Your task to perform on an android device: turn vacation reply on in the gmail app Image 0: 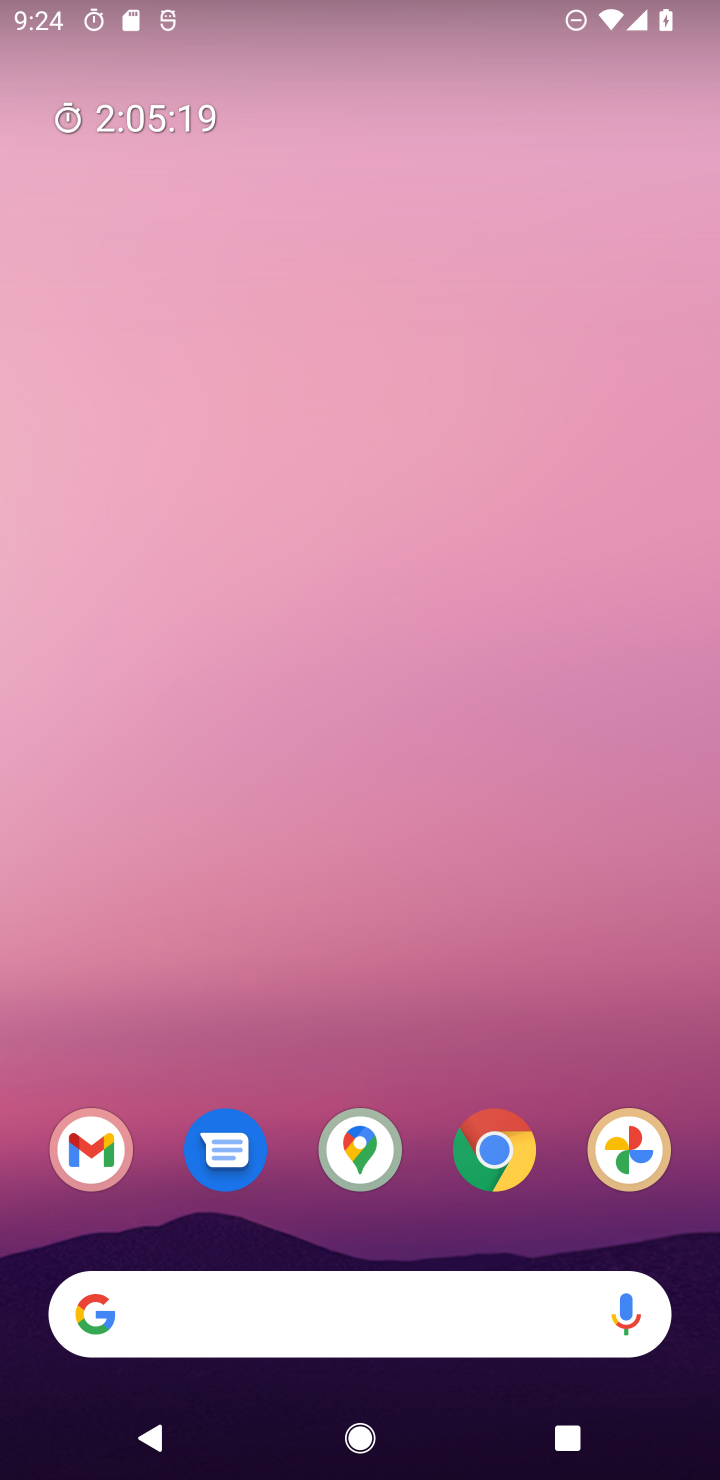
Step 0: drag from (404, 1303) to (459, 16)
Your task to perform on an android device: turn vacation reply on in the gmail app Image 1: 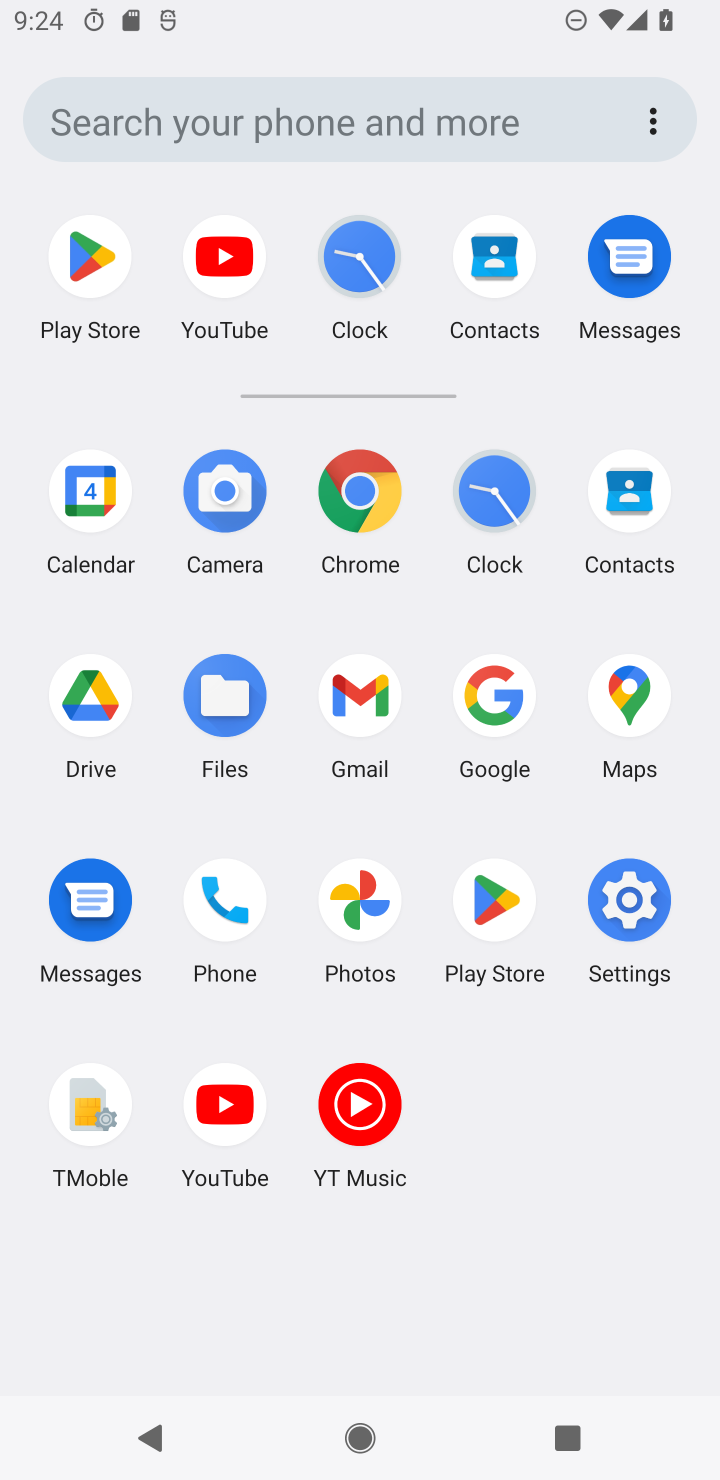
Step 1: click (357, 703)
Your task to perform on an android device: turn vacation reply on in the gmail app Image 2: 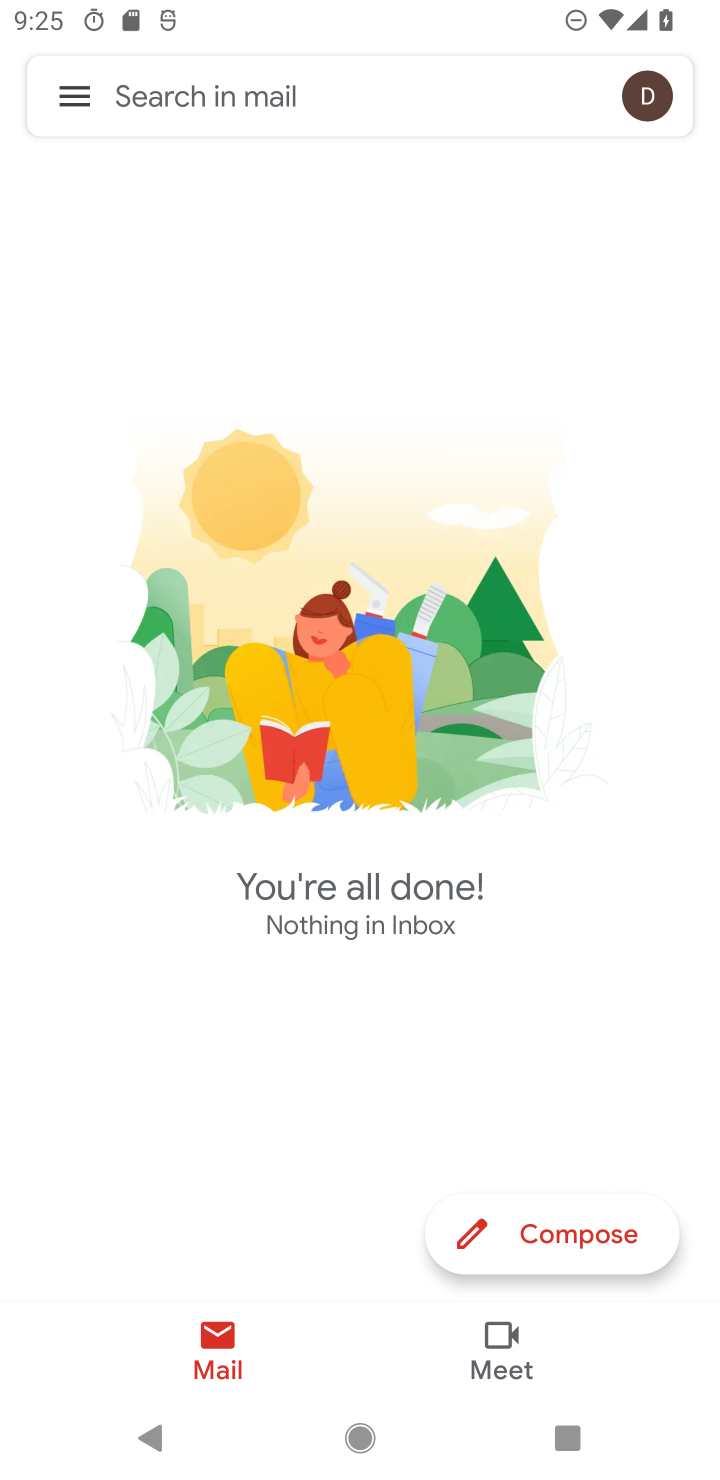
Step 2: click (74, 79)
Your task to perform on an android device: turn vacation reply on in the gmail app Image 3: 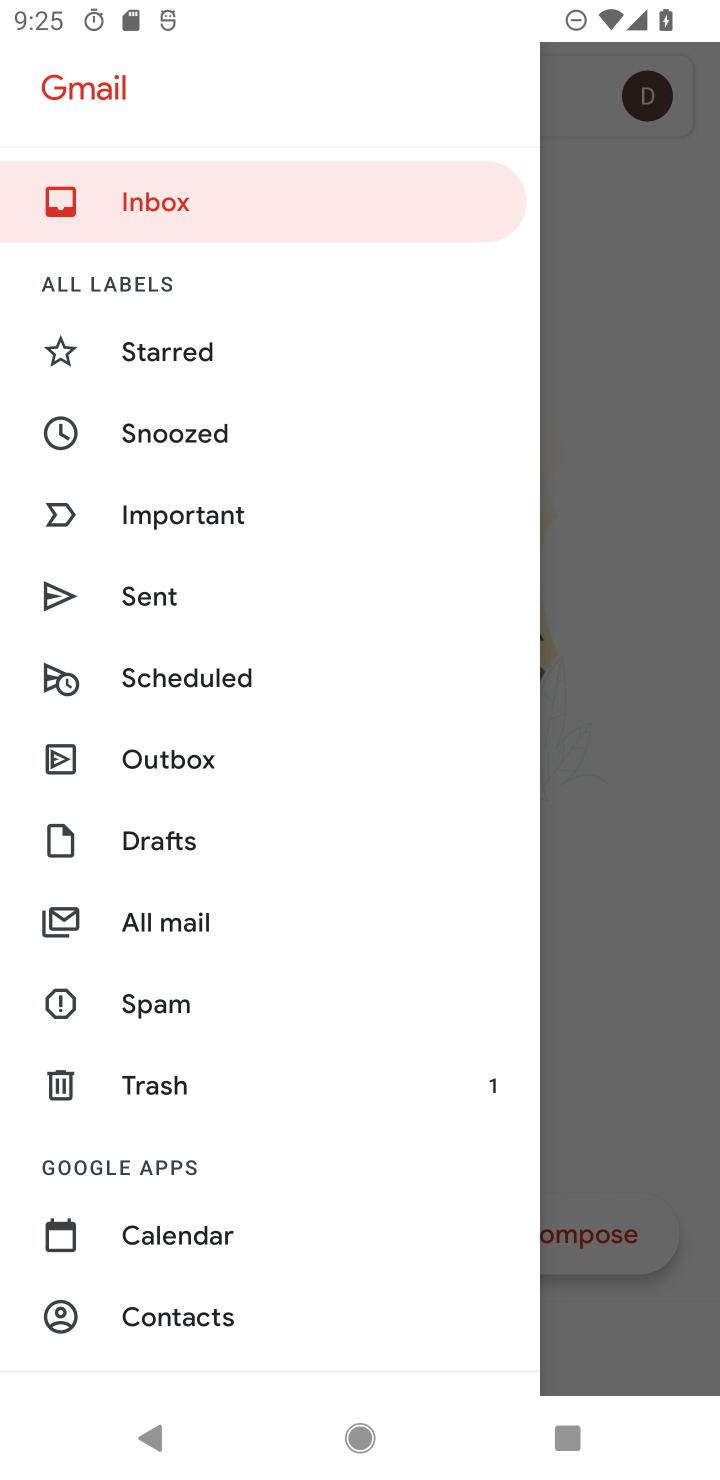
Step 3: drag from (213, 1292) to (109, 749)
Your task to perform on an android device: turn vacation reply on in the gmail app Image 4: 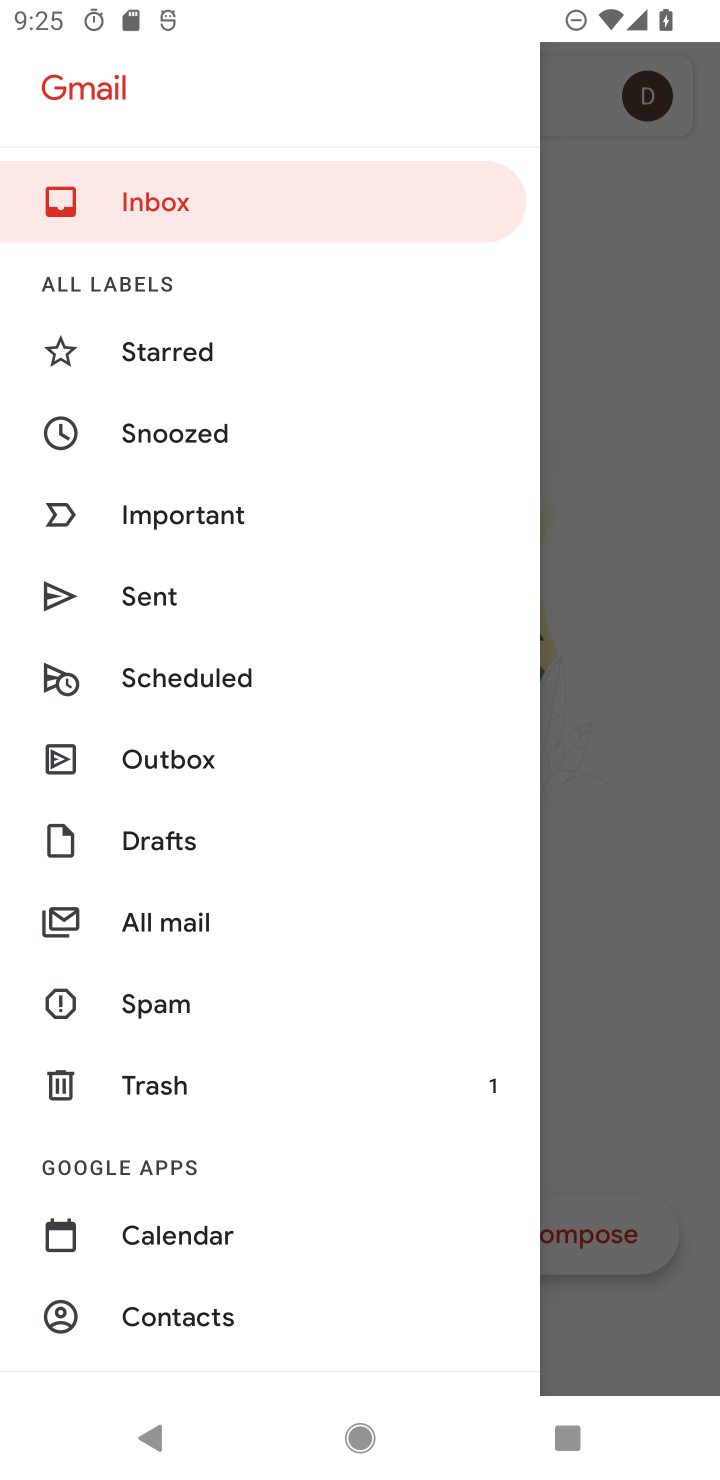
Step 4: drag from (372, 1100) to (358, 45)
Your task to perform on an android device: turn vacation reply on in the gmail app Image 5: 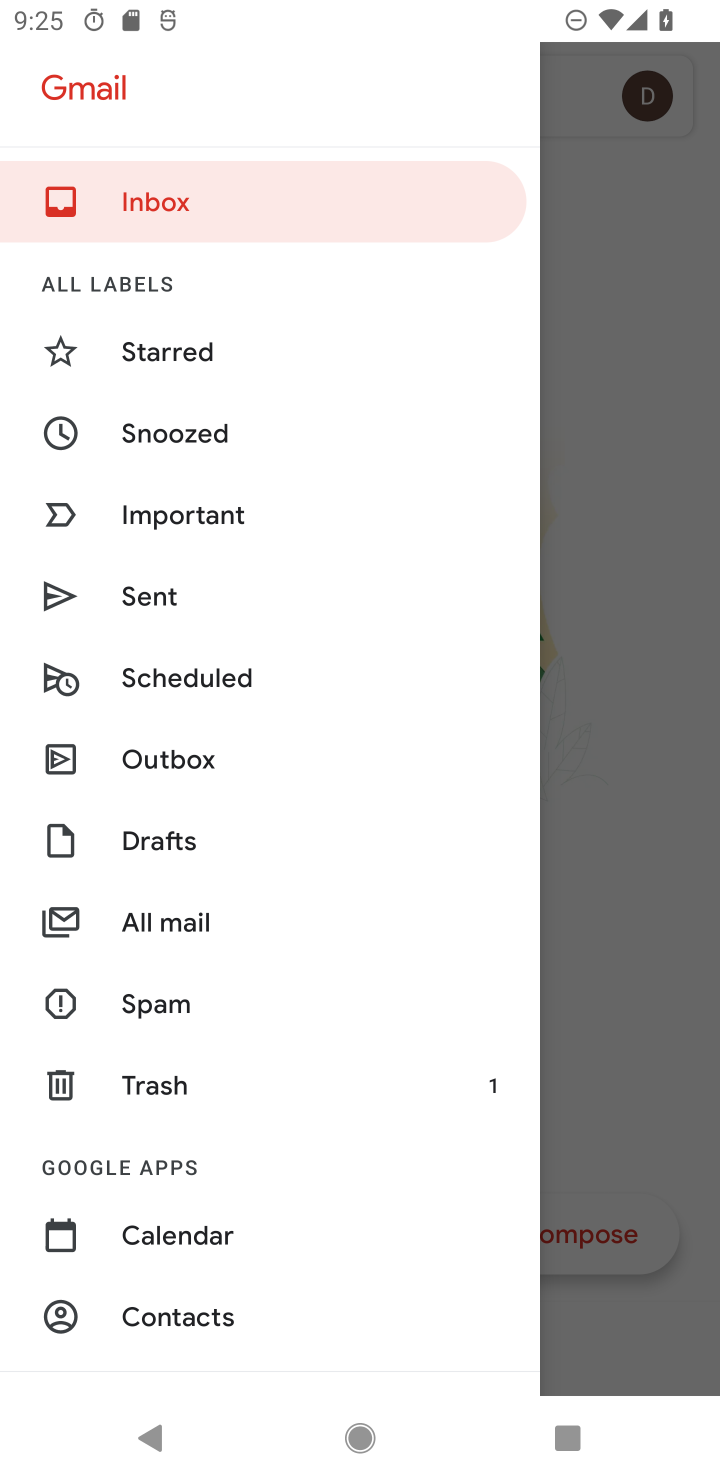
Step 5: drag from (318, 1314) to (402, 456)
Your task to perform on an android device: turn vacation reply on in the gmail app Image 6: 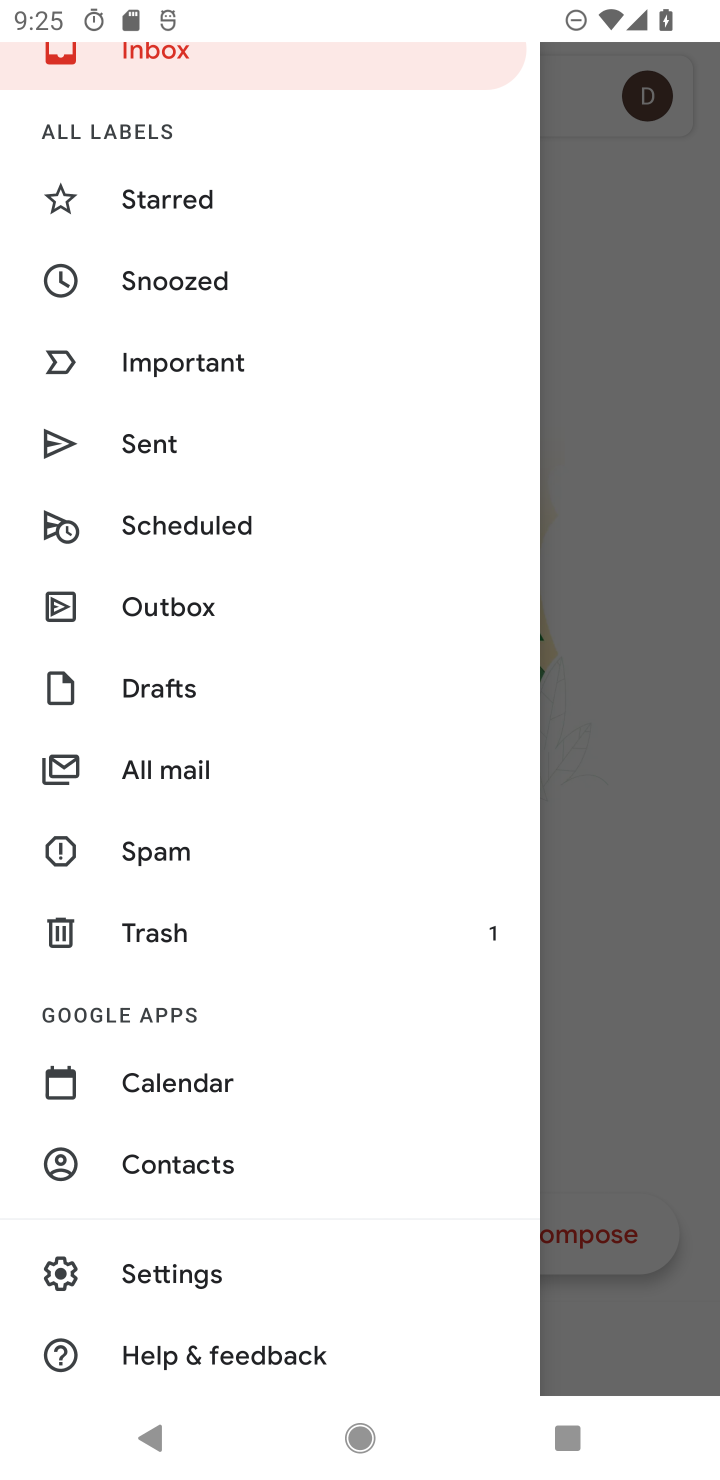
Step 6: click (220, 1267)
Your task to perform on an android device: turn vacation reply on in the gmail app Image 7: 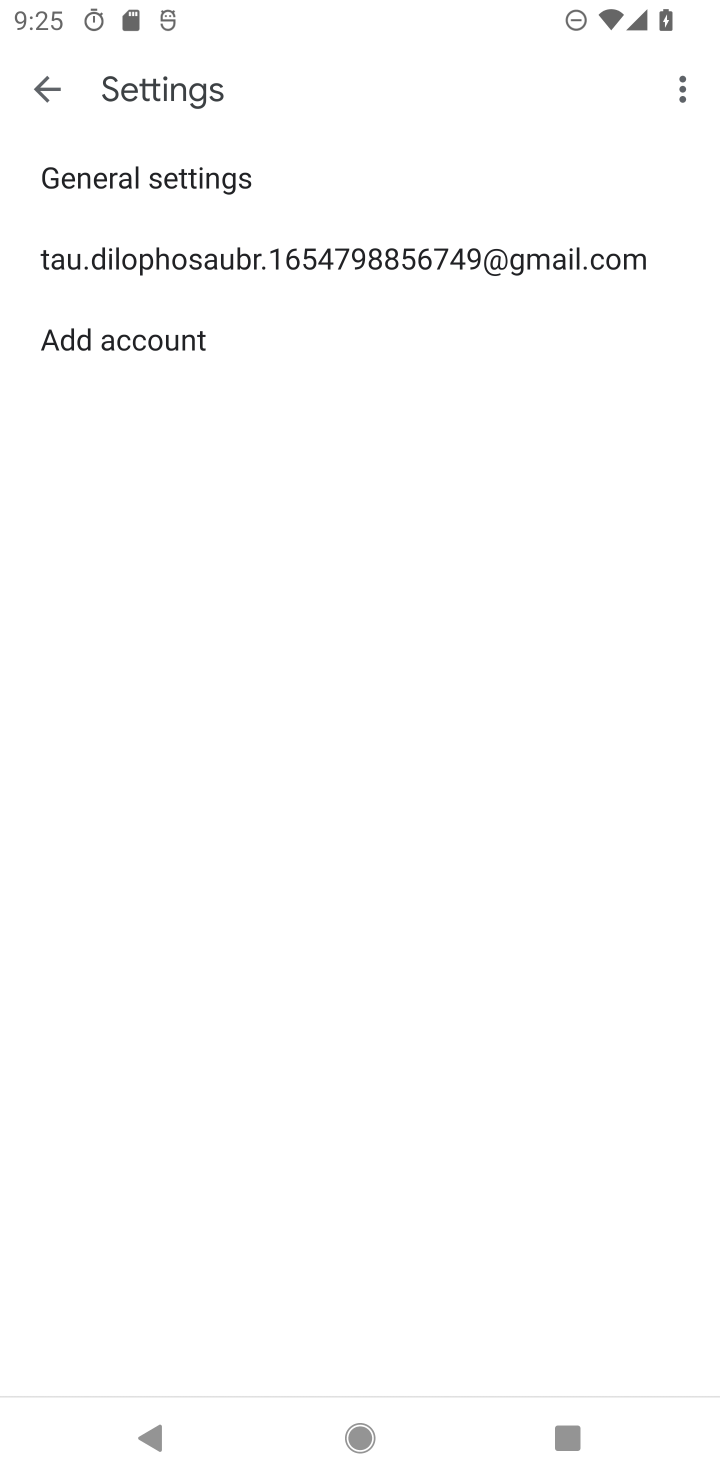
Step 7: click (302, 272)
Your task to perform on an android device: turn vacation reply on in the gmail app Image 8: 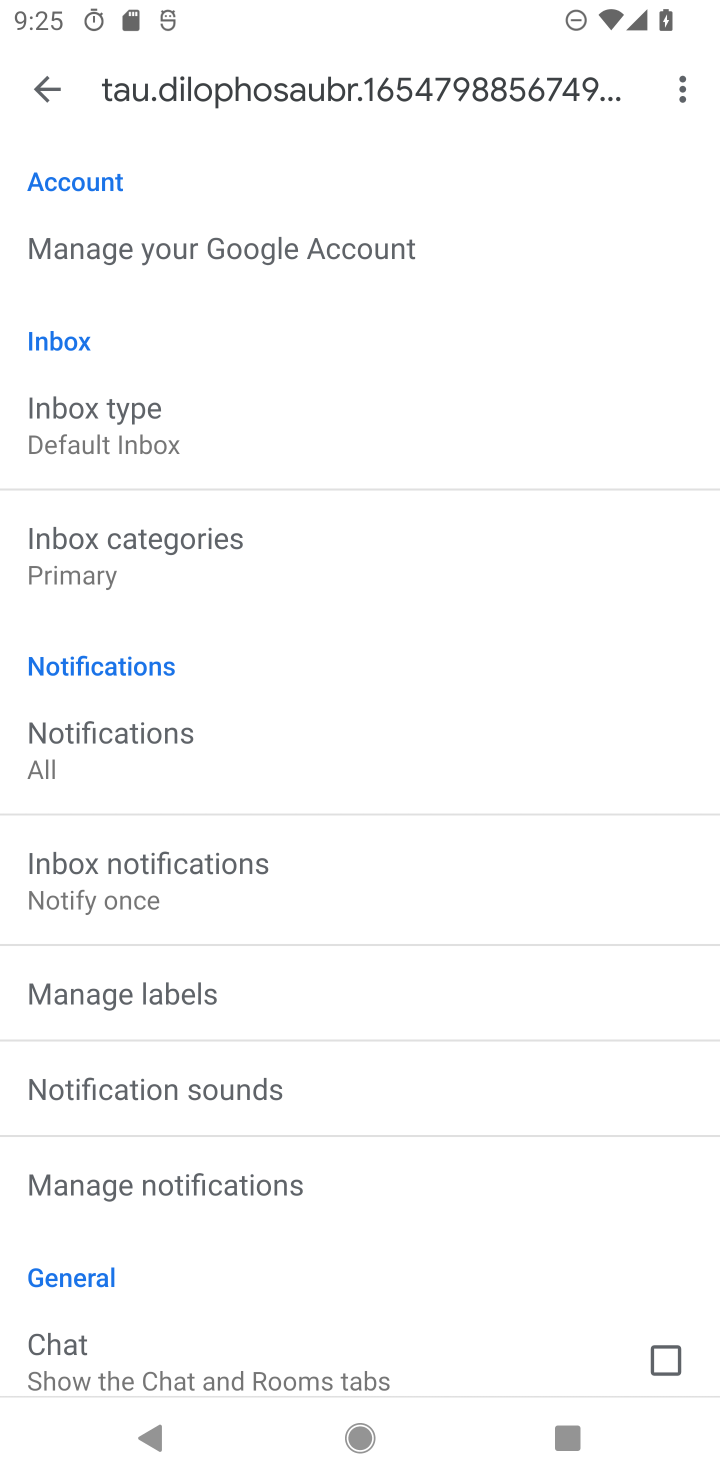
Step 8: drag from (229, 1256) to (506, 272)
Your task to perform on an android device: turn vacation reply on in the gmail app Image 9: 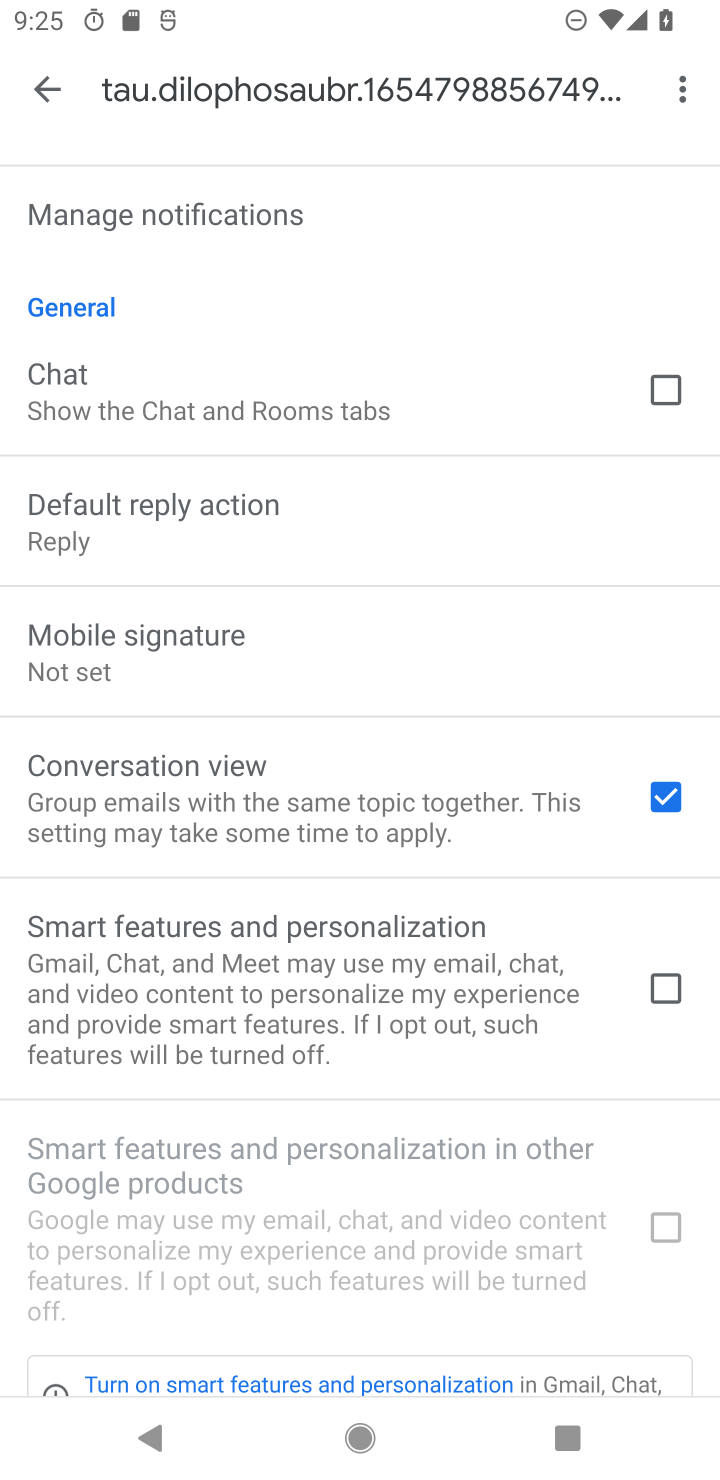
Step 9: drag from (285, 1268) to (391, 434)
Your task to perform on an android device: turn vacation reply on in the gmail app Image 10: 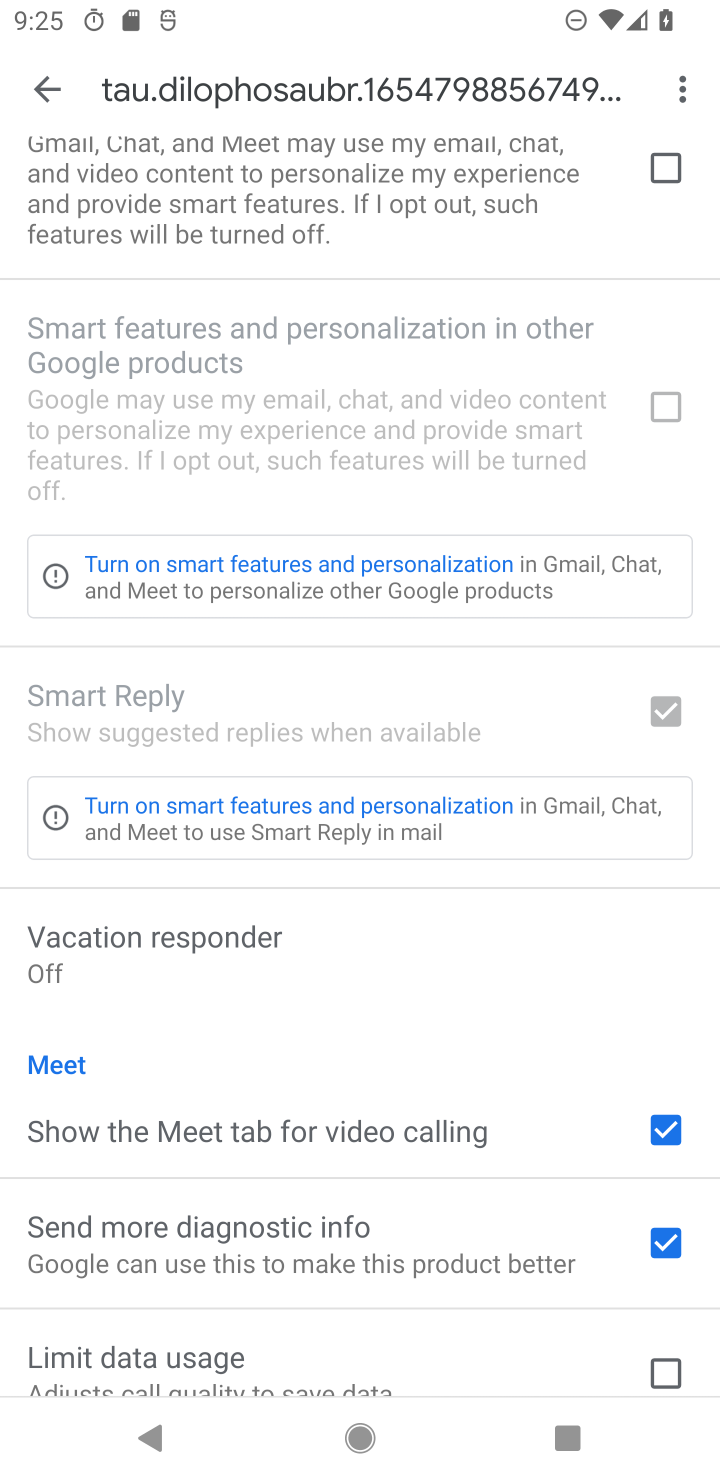
Step 10: click (183, 963)
Your task to perform on an android device: turn vacation reply on in the gmail app Image 11: 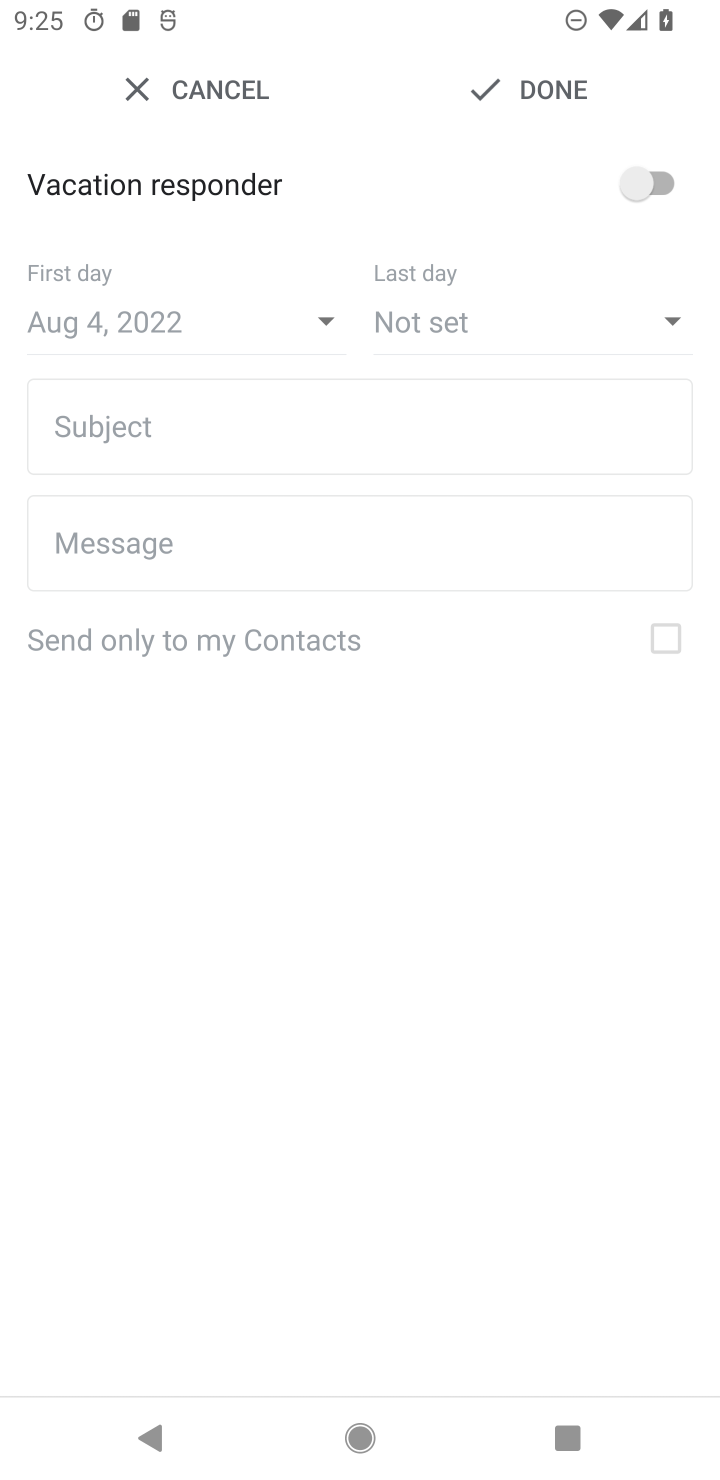
Step 11: click (628, 169)
Your task to perform on an android device: turn vacation reply on in the gmail app Image 12: 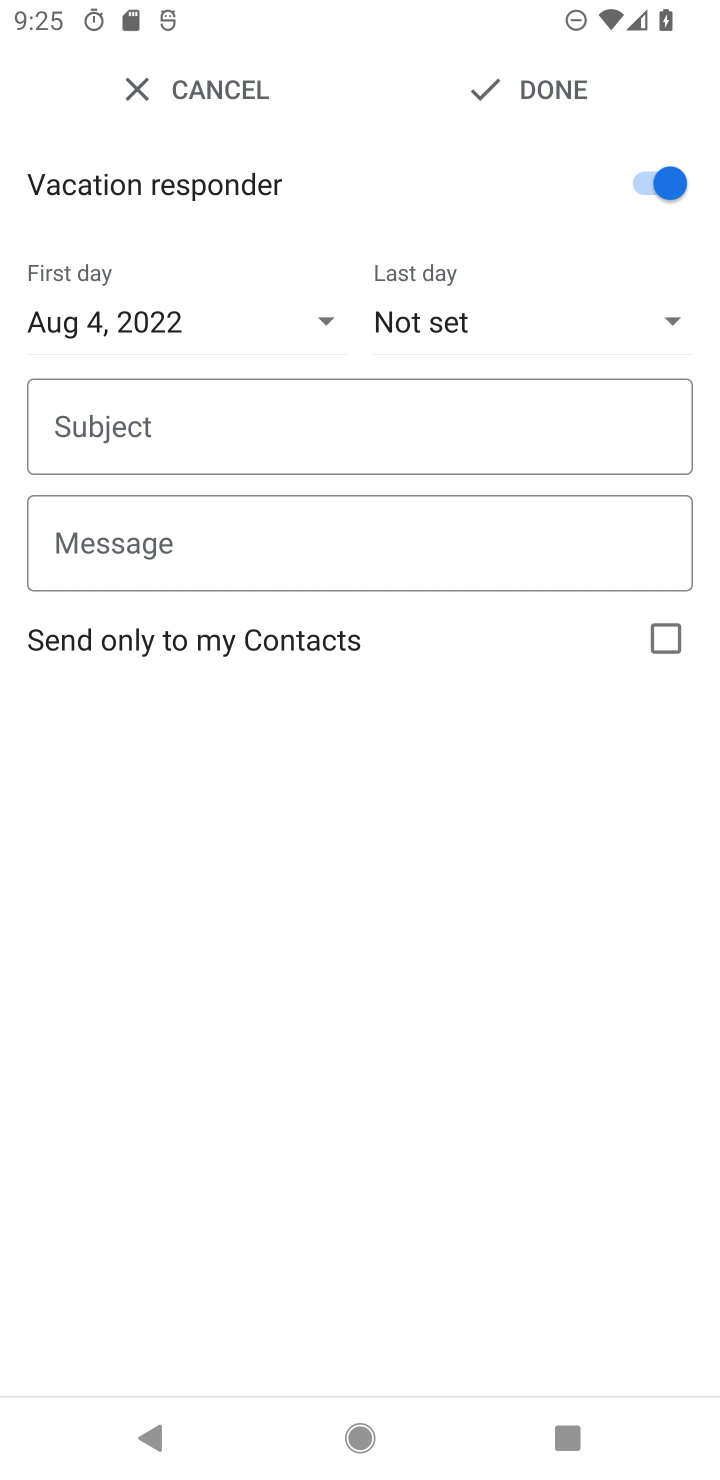
Step 12: click (518, 79)
Your task to perform on an android device: turn vacation reply on in the gmail app Image 13: 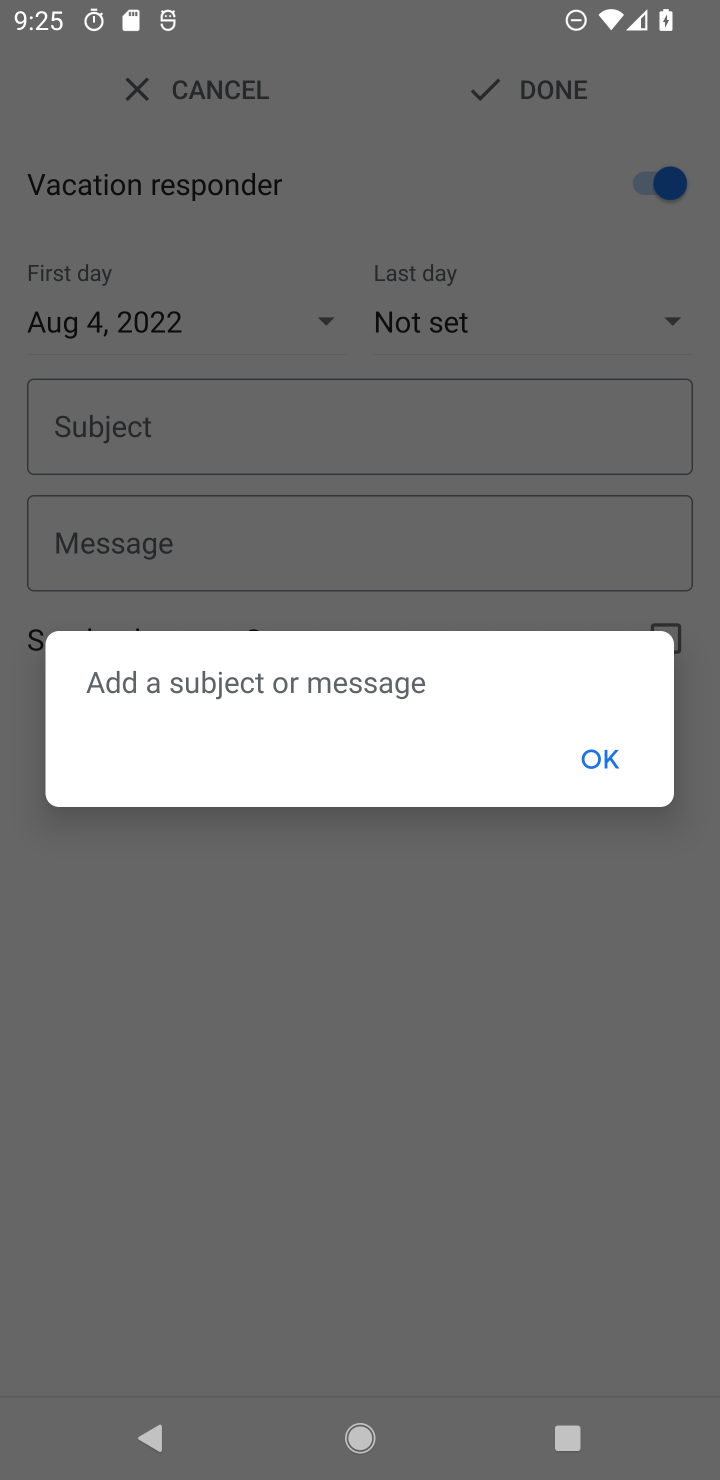
Step 13: click (593, 752)
Your task to perform on an android device: turn vacation reply on in the gmail app Image 14: 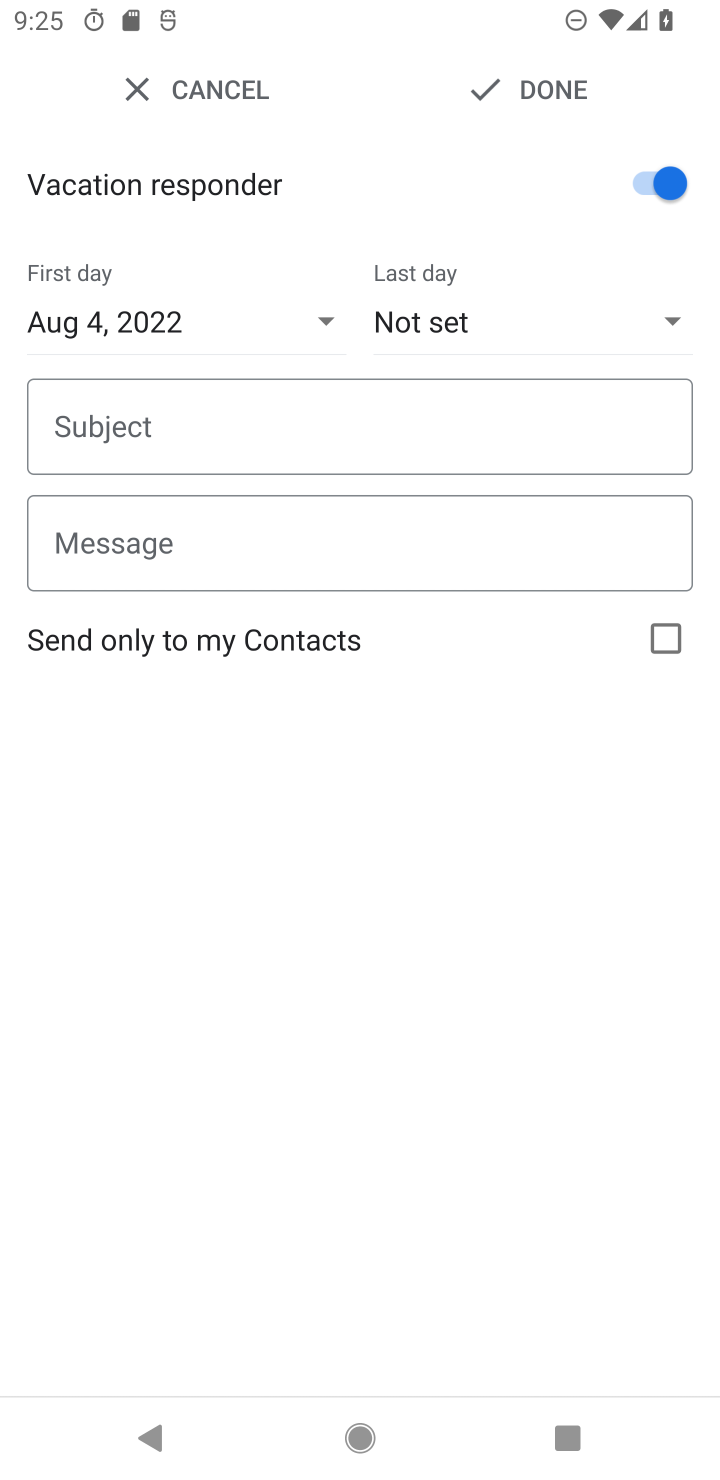
Step 14: click (510, 81)
Your task to perform on an android device: turn vacation reply on in the gmail app Image 15: 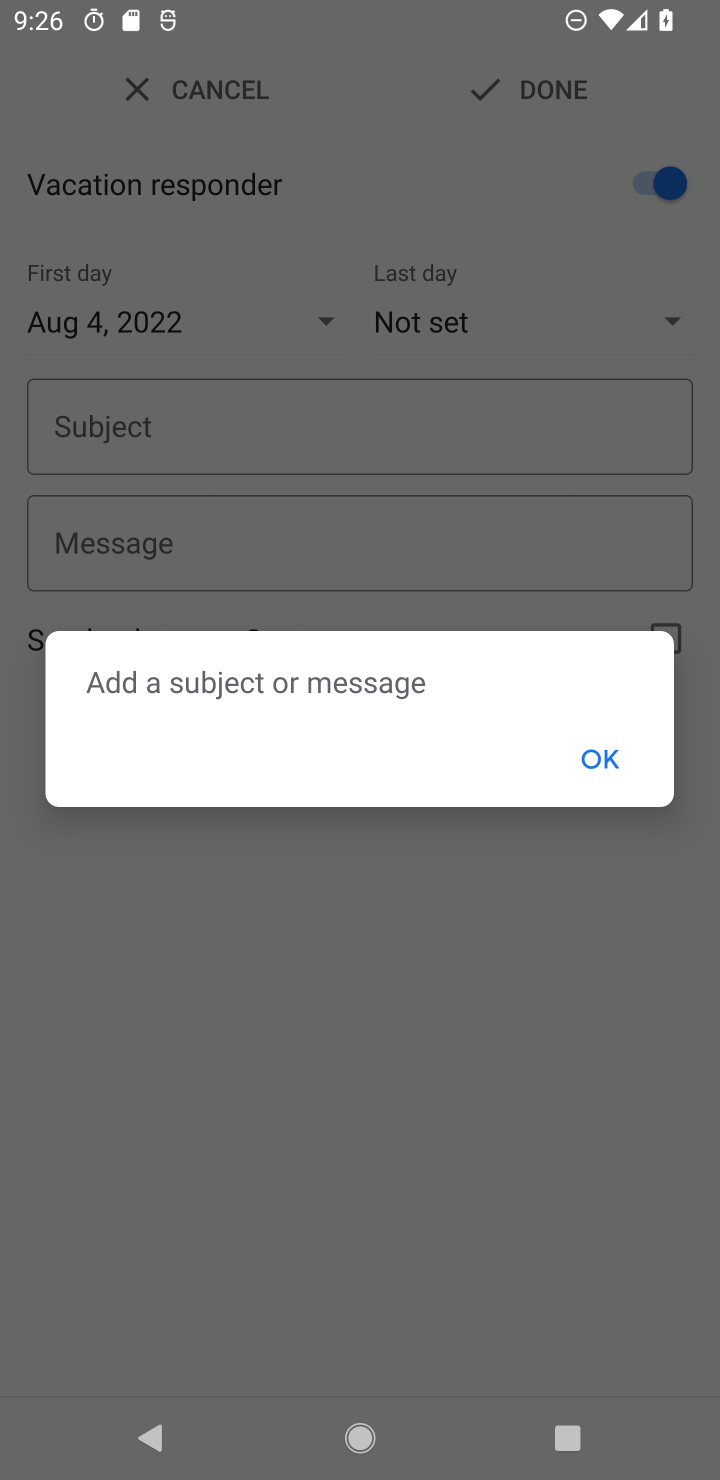
Step 15: task complete